Your task to perform on an android device: turn on airplane mode Image 0: 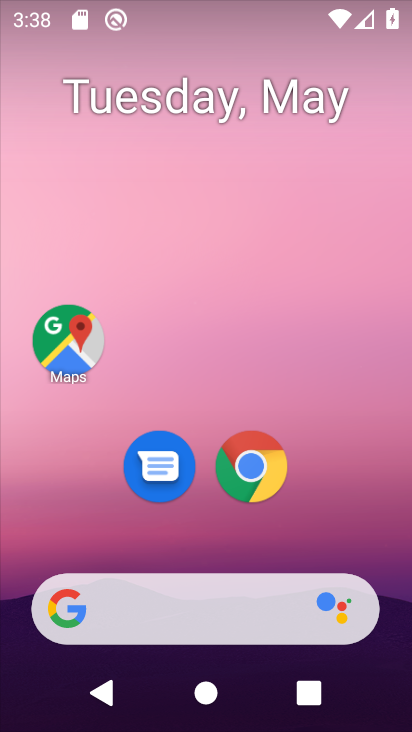
Step 0: drag from (180, 6) to (172, 367)
Your task to perform on an android device: turn on airplane mode Image 1: 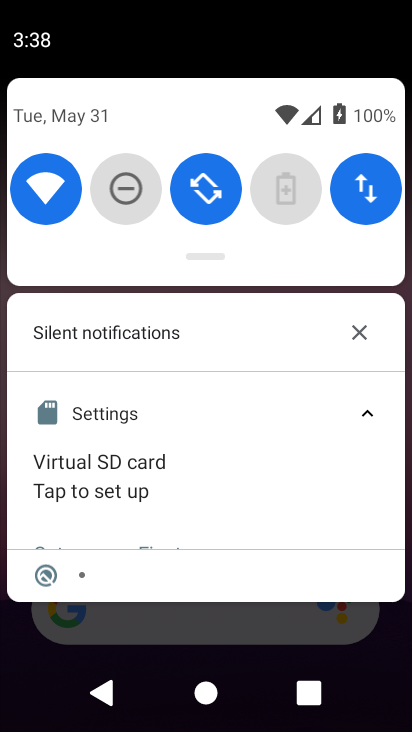
Step 1: drag from (272, 218) to (287, 520)
Your task to perform on an android device: turn on airplane mode Image 2: 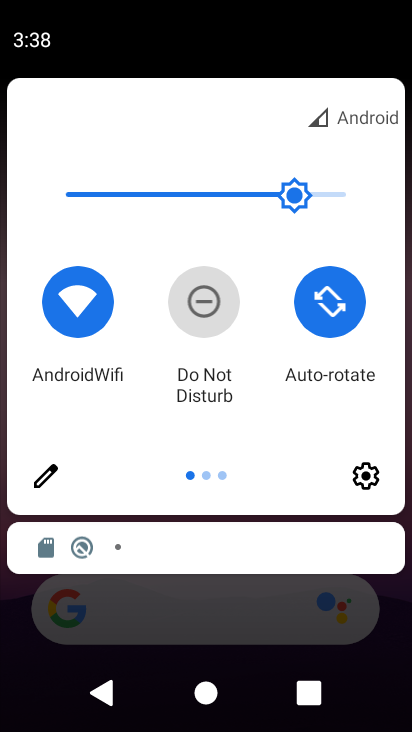
Step 2: drag from (361, 242) to (6, 268)
Your task to perform on an android device: turn on airplane mode Image 3: 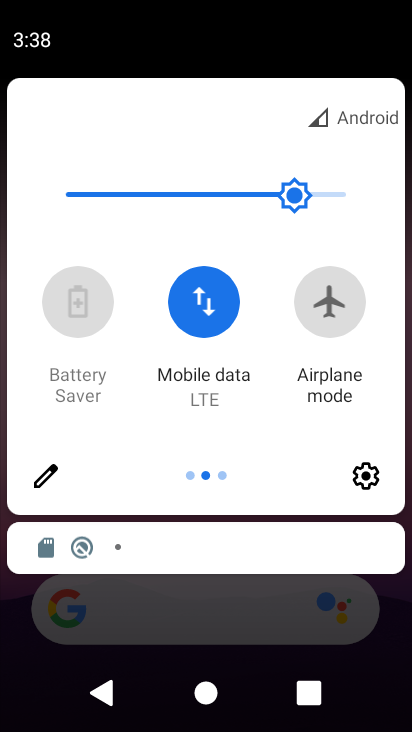
Step 3: click (333, 291)
Your task to perform on an android device: turn on airplane mode Image 4: 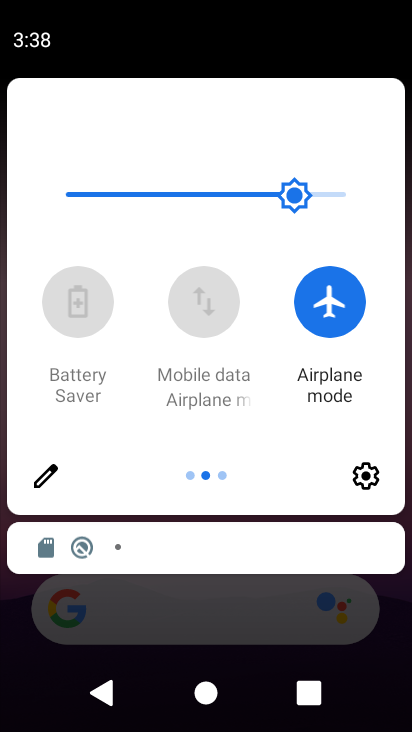
Step 4: task complete